Your task to perform on an android device: Go to internet settings Image 0: 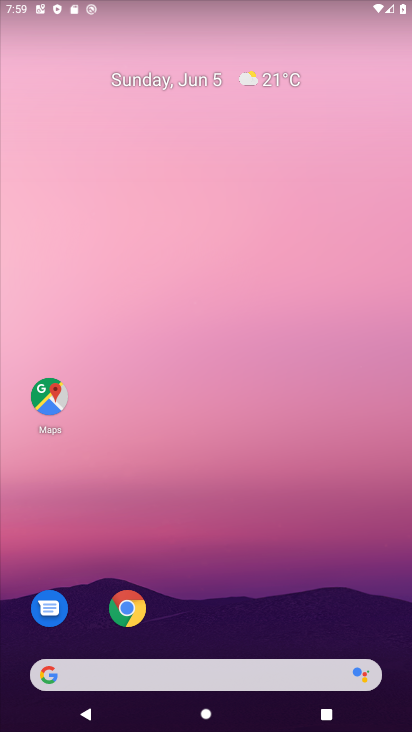
Step 0: drag from (332, 539) to (345, 194)
Your task to perform on an android device: Go to internet settings Image 1: 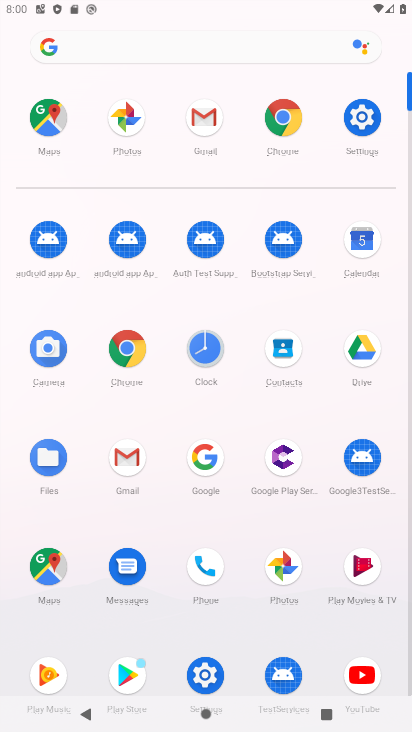
Step 1: click (208, 681)
Your task to perform on an android device: Go to internet settings Image 2: 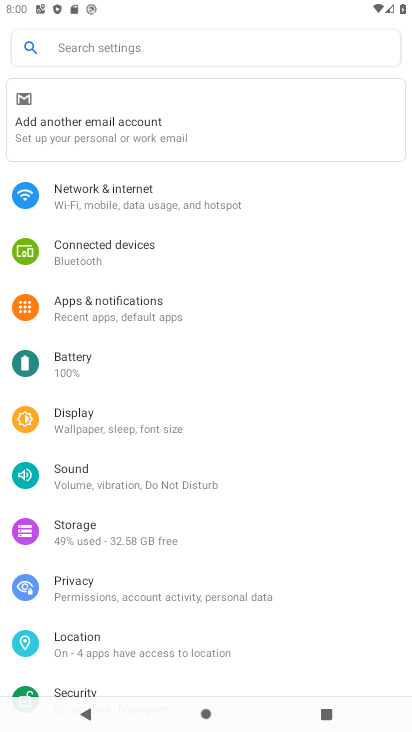
Step 2: click (155, 205)
Your task to perform on an android device: Go to internet settings Image 3: 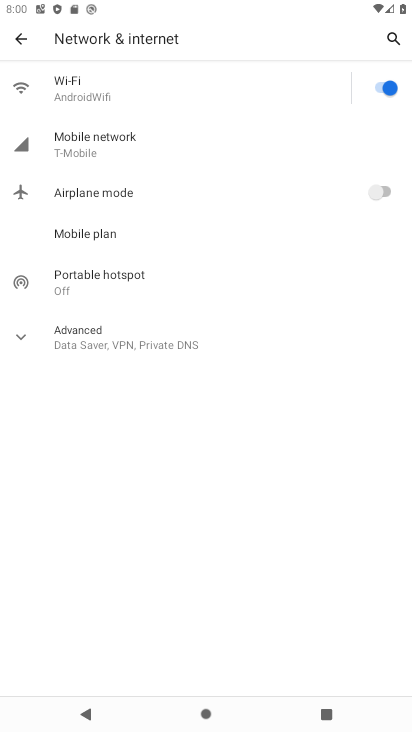
Step 3: task complete